Your task to perform on an android device: show emergency info Image 0: 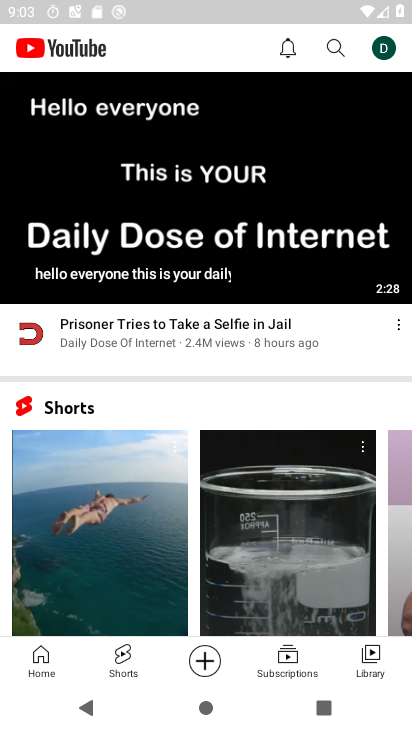
Step 0: press home button
Your task to perform on an android device: show emergency info Image 1: 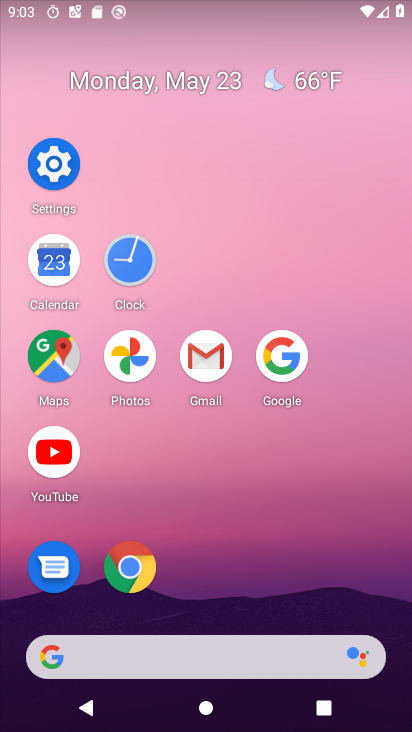
Step 1: click (71, 179)
Your task to perform on an android device: show emergency info Image 2: 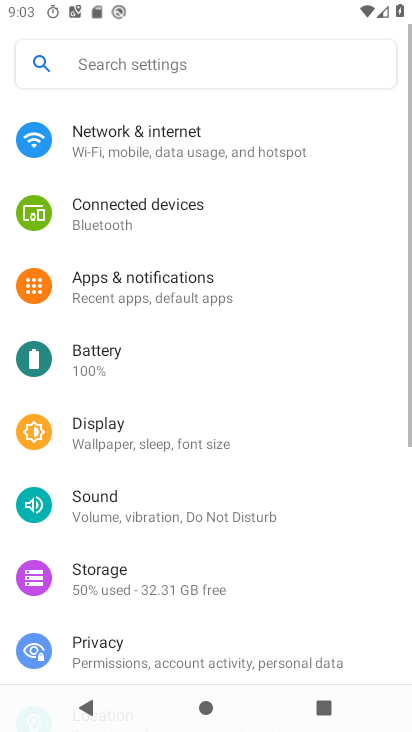
Step 2: drag from (309, 488) to (323, 157)
Your task to perform on an android device: show emergency info Image 3: 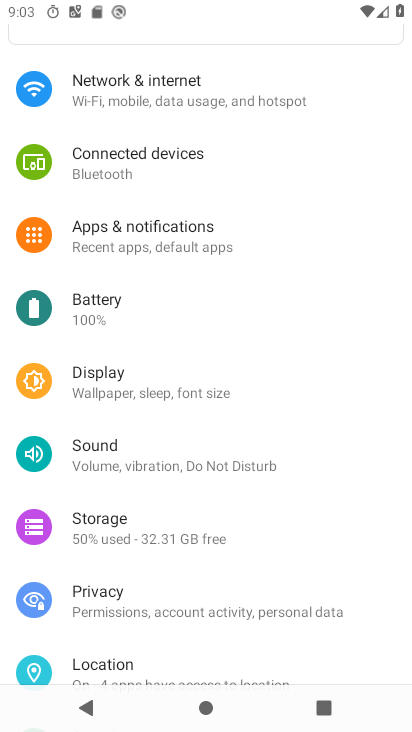
Step 3: drag from (283, 543) to (267, 133)
Your task to perform on an android device: show emergency info Image 4: 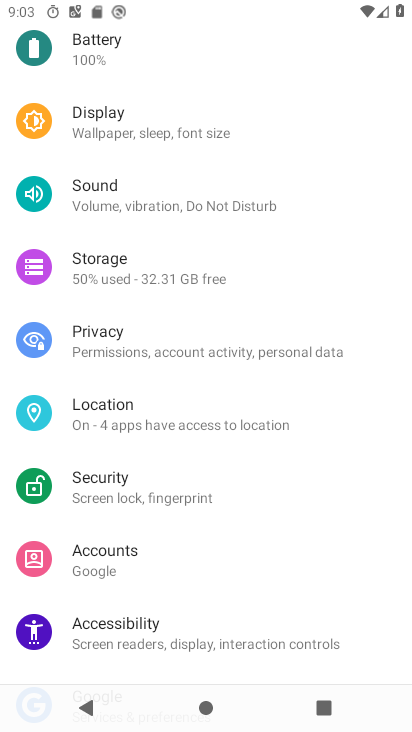
Step 4: drag from (207, 585) to (247, 232)
Your task to perform on an android device: show emergency info Image 5: 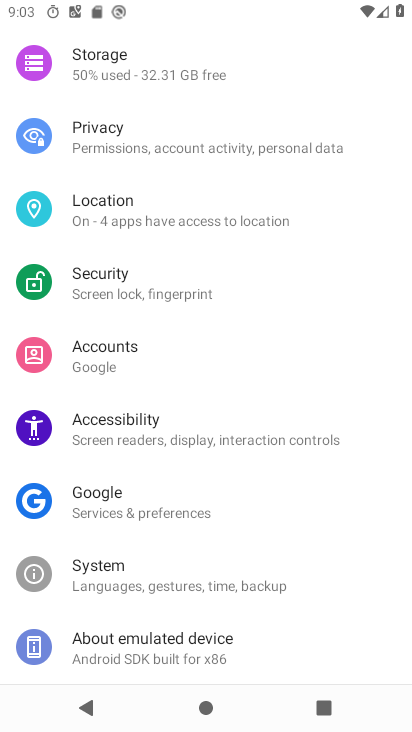
Step 5: click (197, 666)
Your task to perform on an android device: show emergency info Image 6: 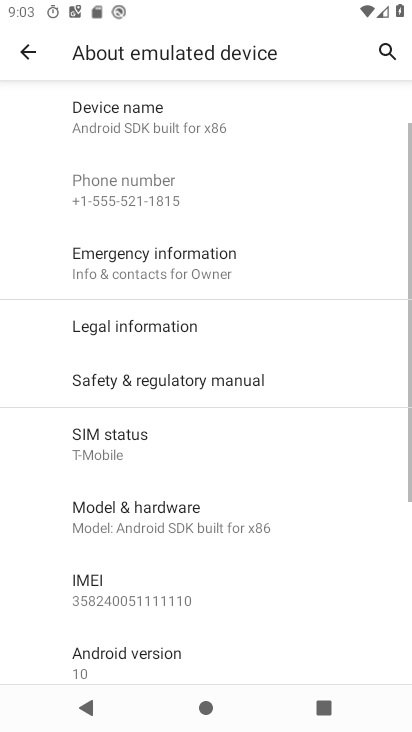
Step 6: click (132, 268)
Your task to perform on an android device: show emergency info Image 7: 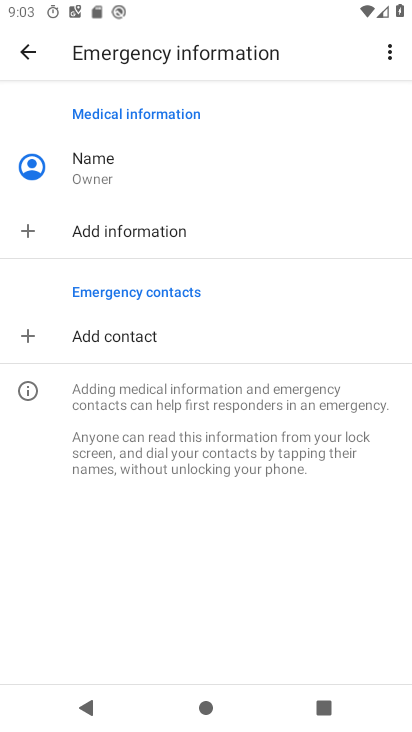
Step 7: task complete